Your task to perform on an android device: move an email to a new category in the gmail app Image 0: 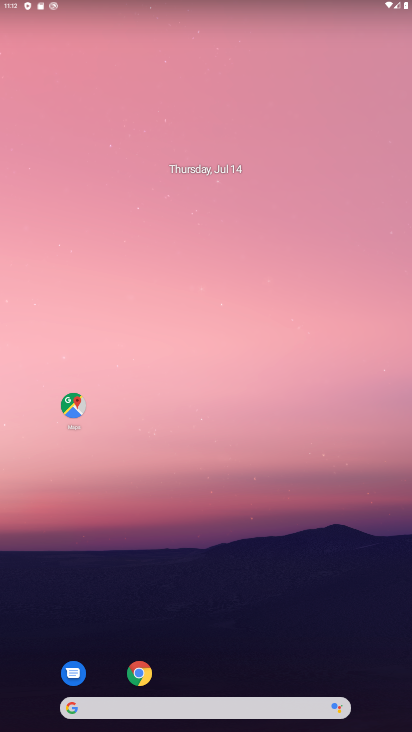
Step 0: drag from (268, 643) to (219, 28)
Your task to perform on an android device: move an email to a new category in the gmail app Image 1: 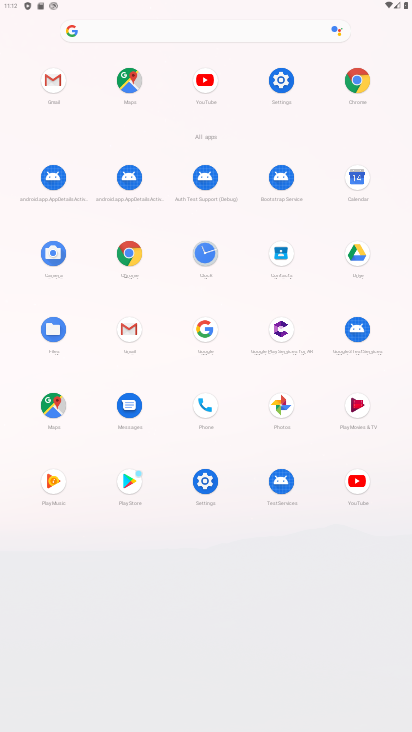
Step 1: click (121, 333)
Your task to perform on an android device: move an email to a new category in the gmail app Image 2: 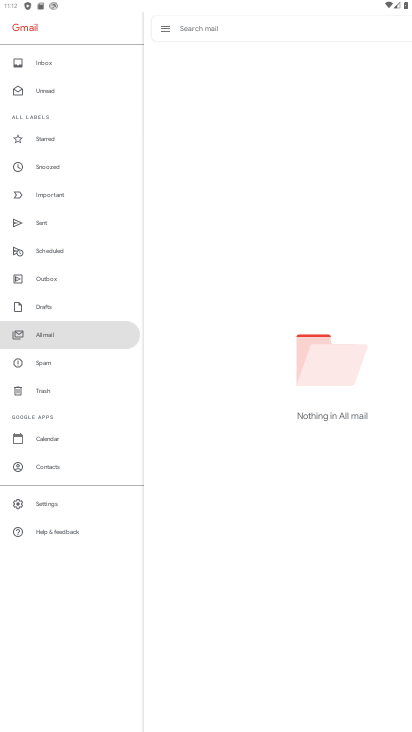
Step 2: task complete